Your task to perform on an android device: open the mobile data screen to see how much data has been used Image 0: 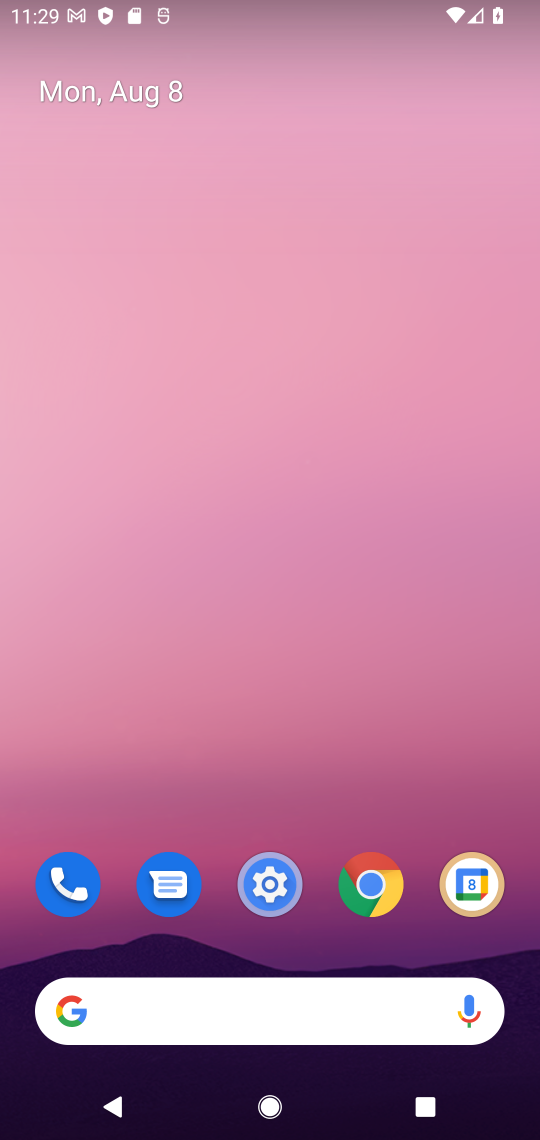
Step 0: drag from (242, 822) to (257, 146)
Your task to perform on an android device: open the mobile data screen to see how much data has been used Image 1: 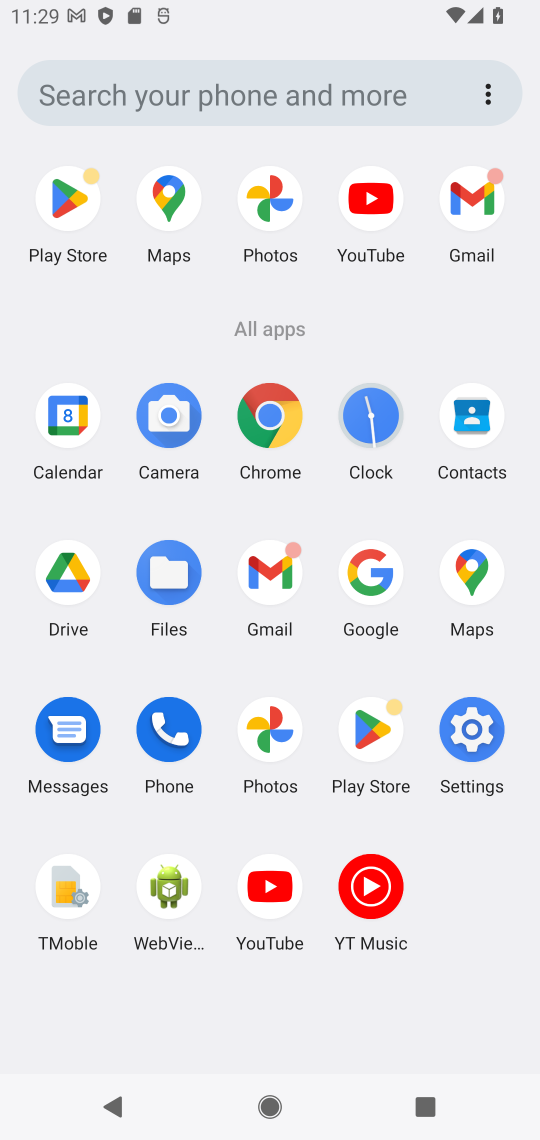
Step 1: click (470, 762)
Your task to perform on an android device: open the mobile data screen to see how much data has been used Image 2: 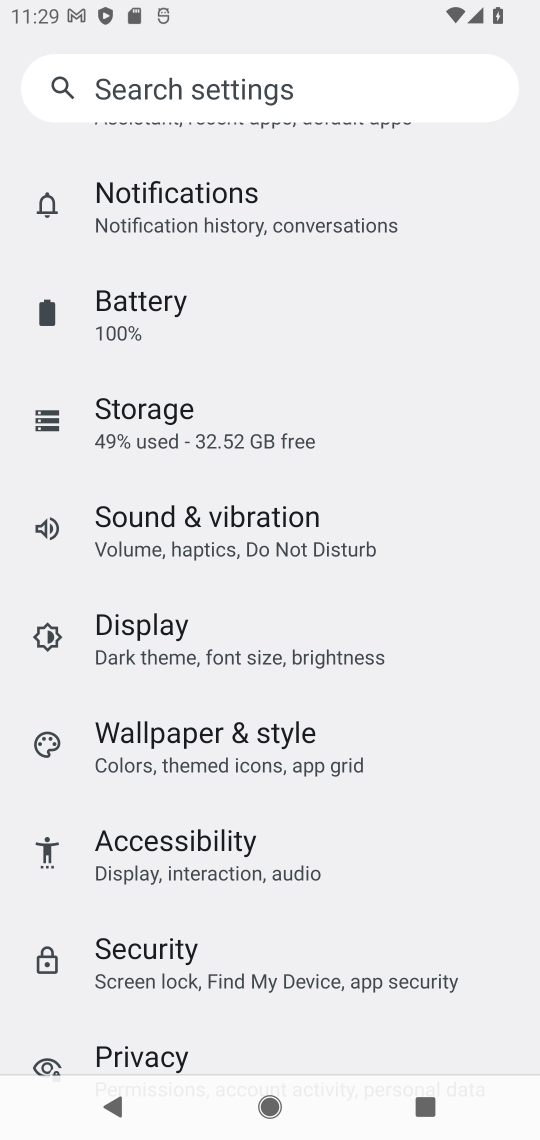
Step 2: drag from (286, 237) to (294, 688)
Your task to perform on an android device: open the mobile data screen to see how much data has been used Image 3: 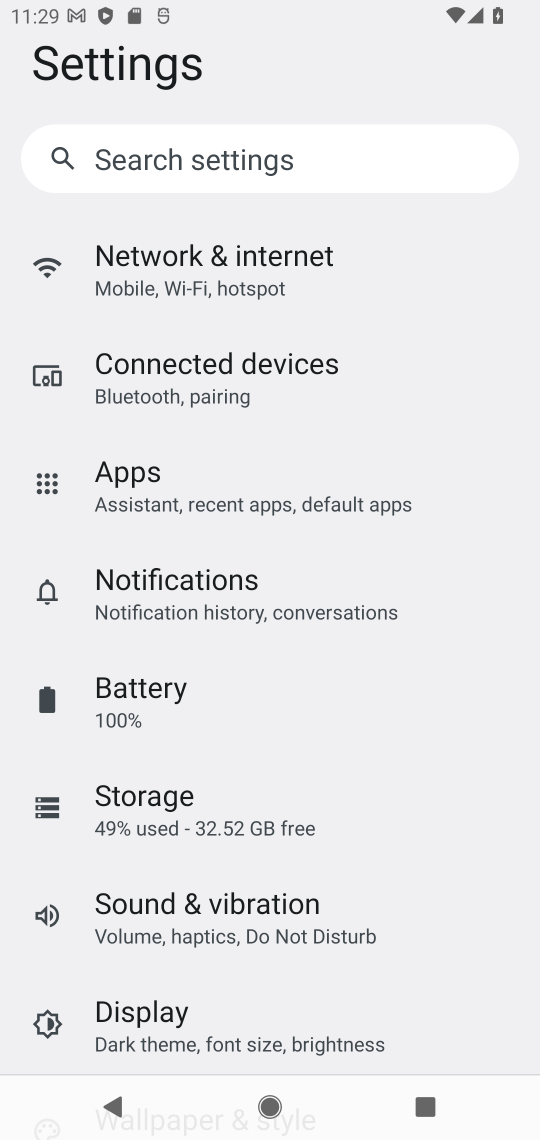
Step 3: drag from (232, 293) to (220, 887)
Your task to perform on an android device: open the mobile data screen to see how much data has been used Image 4: 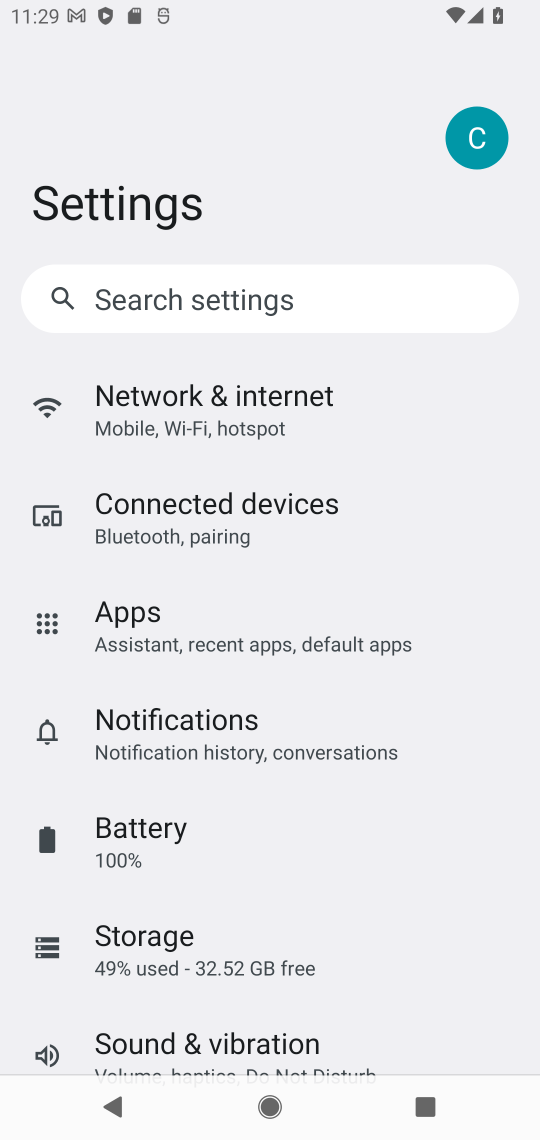
Step 4: click (229, 420)
Your task to perform on an android device: open the mobile data screen to see how much data has been used Image 5: 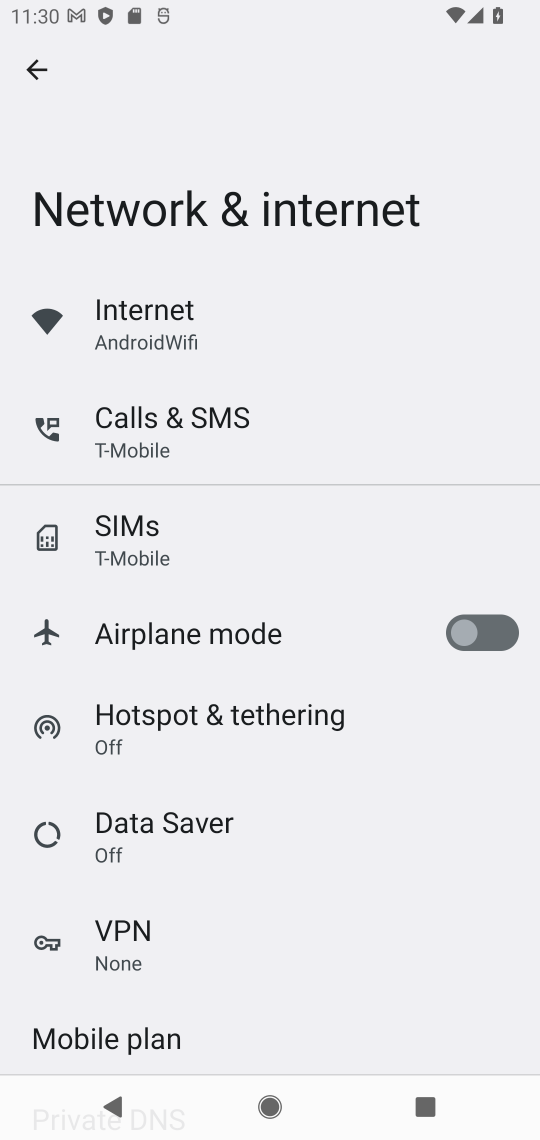
Step 5: click (186, 317)
Your task to perform on an android device: open the mobile data screen to see how much data has been used Image 6: 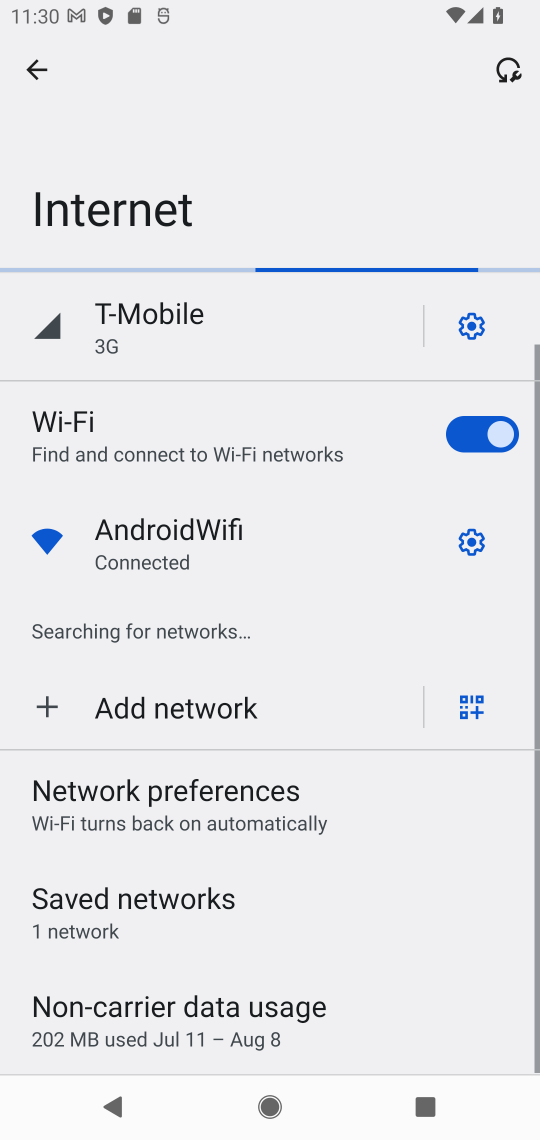
Step 6: click (476, 315)
Your task to perform on an android device: open the mobile data screen to see how much data has been used Image 7: 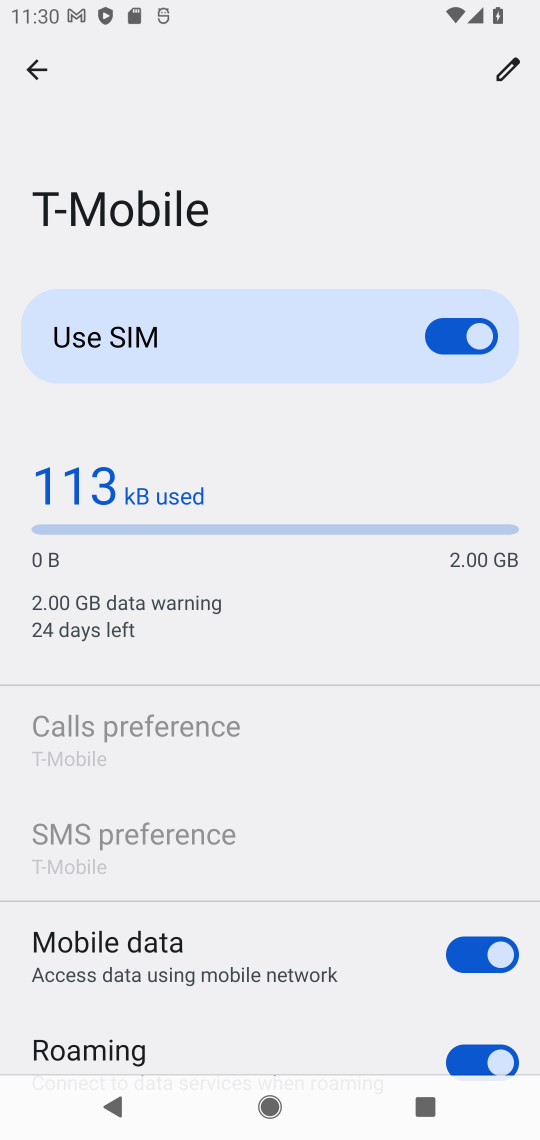
Step 7: drag from (293, 795) to (367, 282)
Your task to perform on an android device: open the mobile data screen to see how much data has been used Image 8: 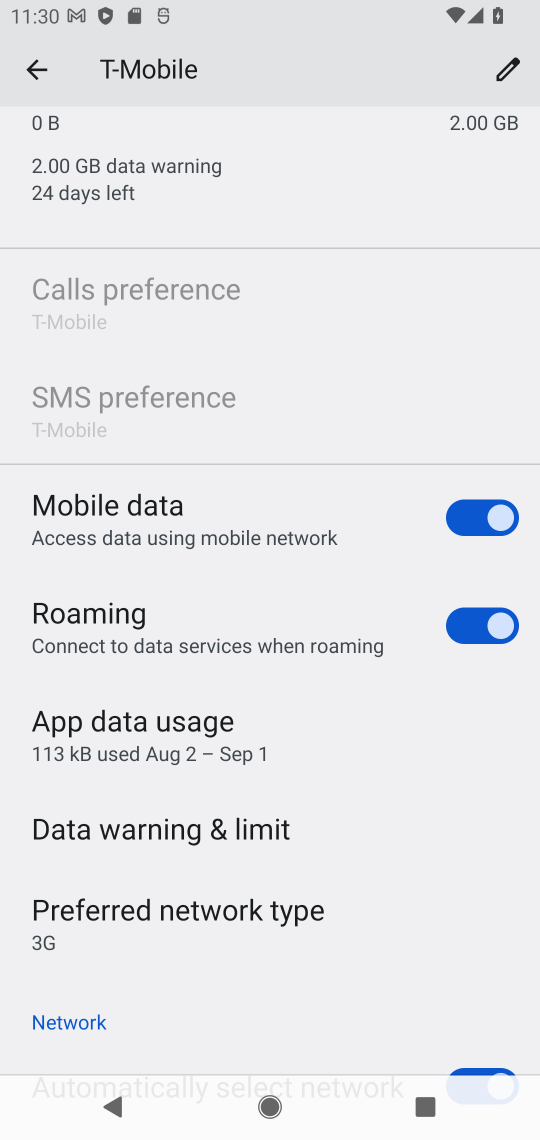
Step 8: click (141, 742)
Your task to perform on an android device: open the mobile data screen to see how much data has been used Image 9: 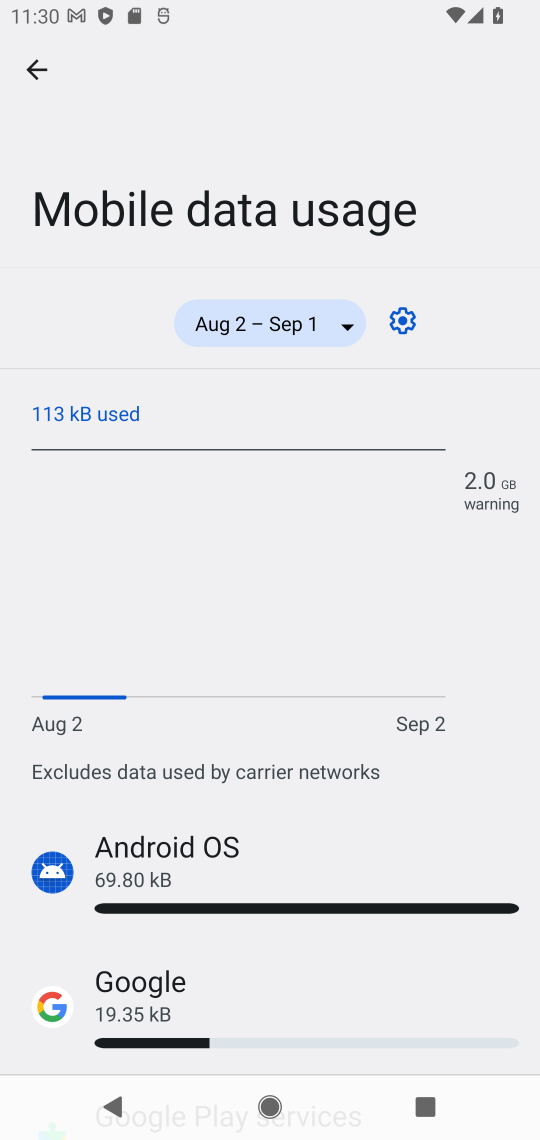
Step 9: task complete